Your task to perform on an android device: set default search engine in the chrome app Image 0: 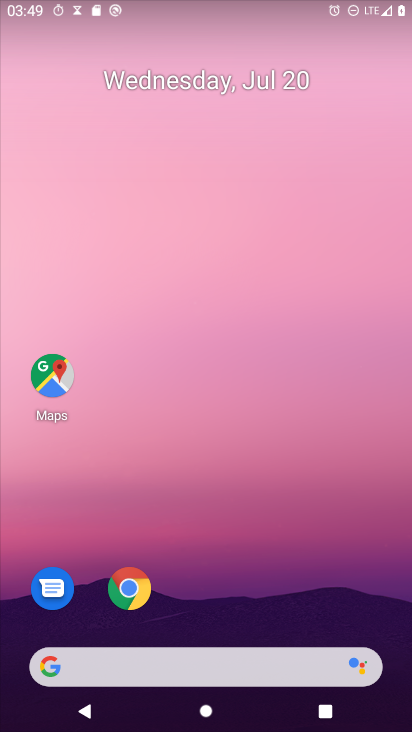
Step 0: click (133, 586)
Your task to perform on an android device: set default search engine in the chrome app Image 1: 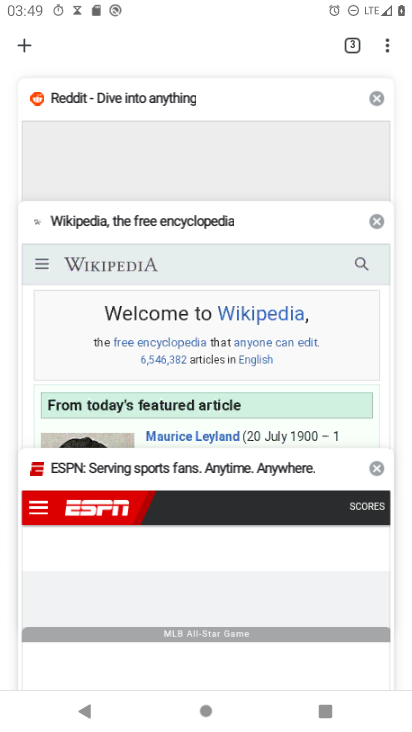
Step 1: click (173, 618)
Your task to perform on an android device: set default search engine in the chrome app Image 2: 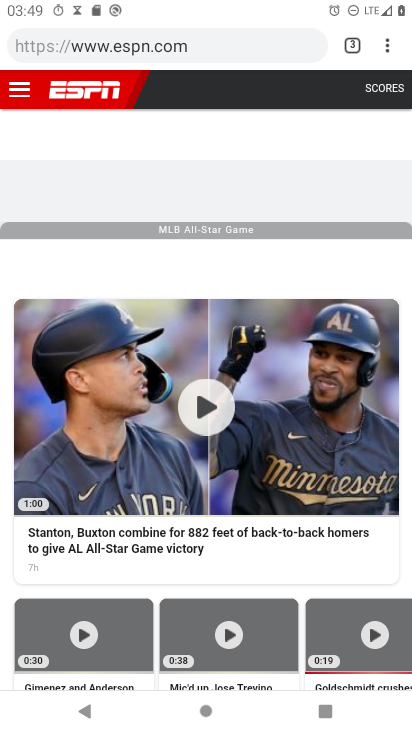
Step 2: click (384, 52)
Your task to perform on an android device: set default search engine in the chrome app Image 3: 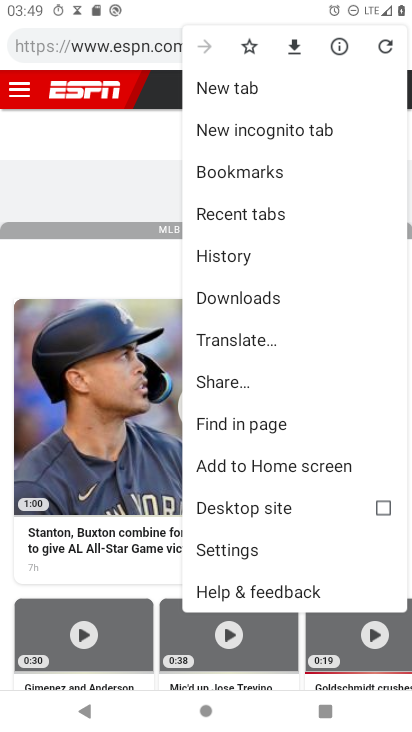
Step 3: click (222, 537)
Your task to perform on an android device: set default search engine in the chrome app Image 4: 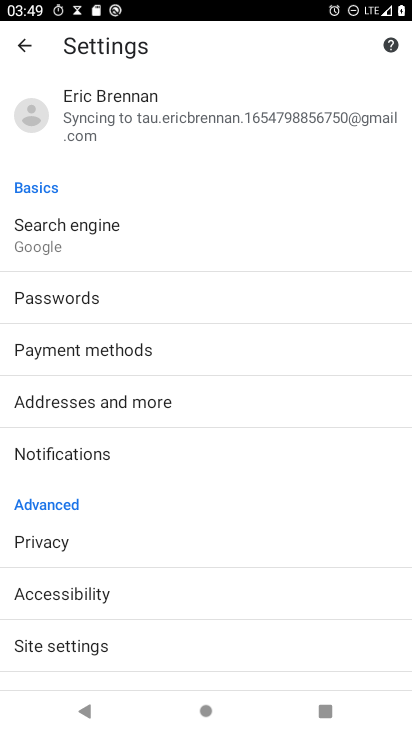
Step 4: click (146, 259)
Your task to perform on an android device: set default search engine in the chrome app Image 5: 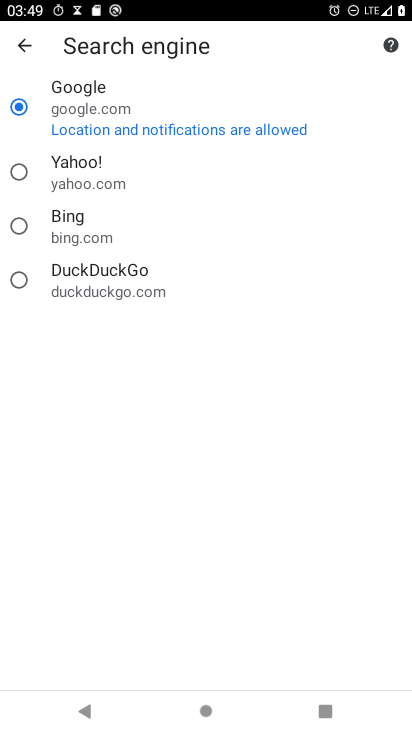
Step 5: click (32, 110)
Your task to perform on an android device: set default search engine in the chrome app Image 6: 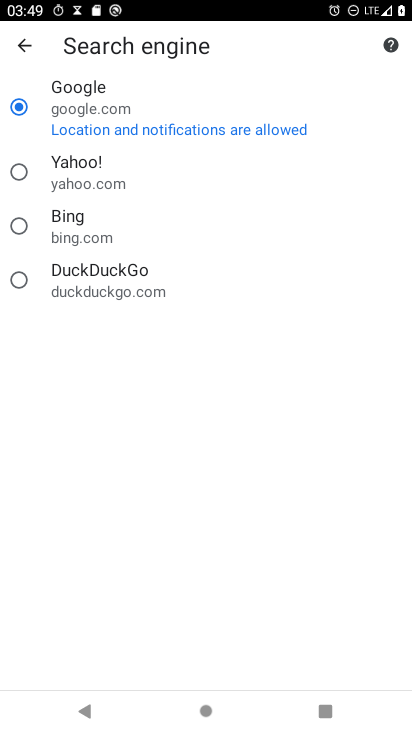
Step 6: task complete